Your task to perform on an android device: star an email in the gmail app Image 0: 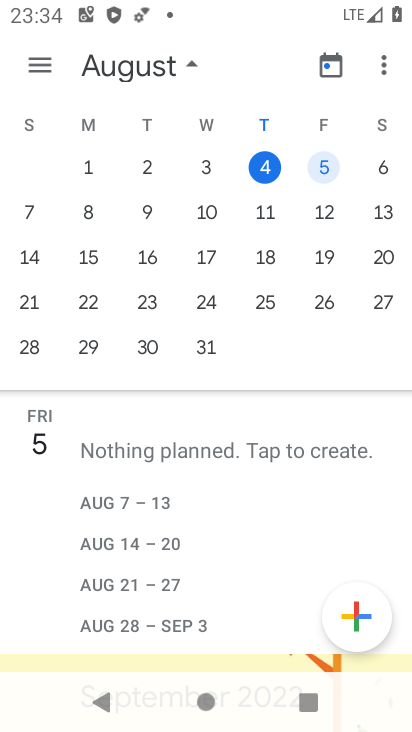
Step 0: press home button
Your task to perform on an android device: star an email in the gmail app Image 1: 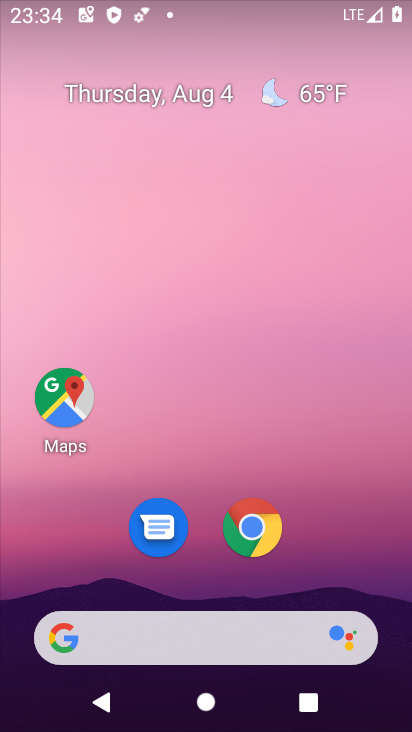
Step 1: drag from (151, 684) to (327, 119)
Your task to perform on an android device: star an email in the gmail app Image 2: 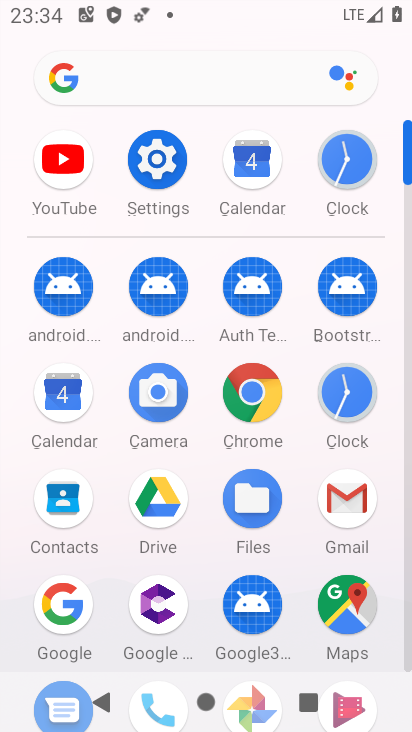
Step 2: click (365, 502)
Your task to perform on an android device: star an email in the gmail app Image 3: 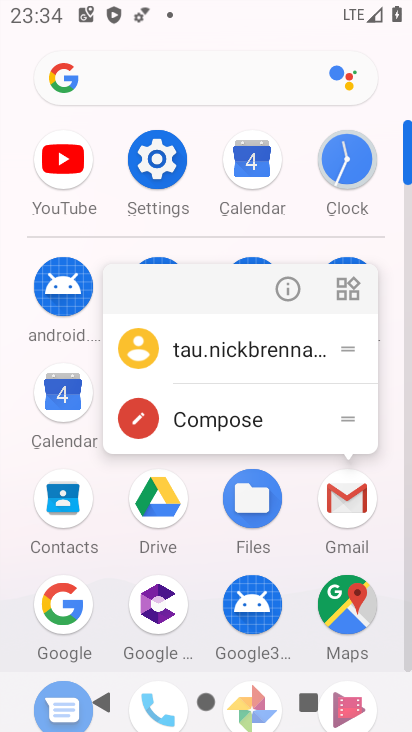
Step 3: click (365, 497)
Your task to perform on an android device: star an email in the gmail app Image 4: 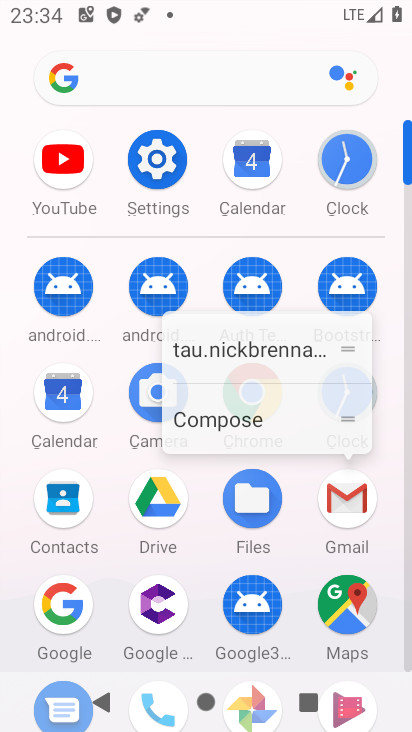
Step 4: click (365, 497)
Your task to perform on an android device: star an email in the gmail app Image 5: 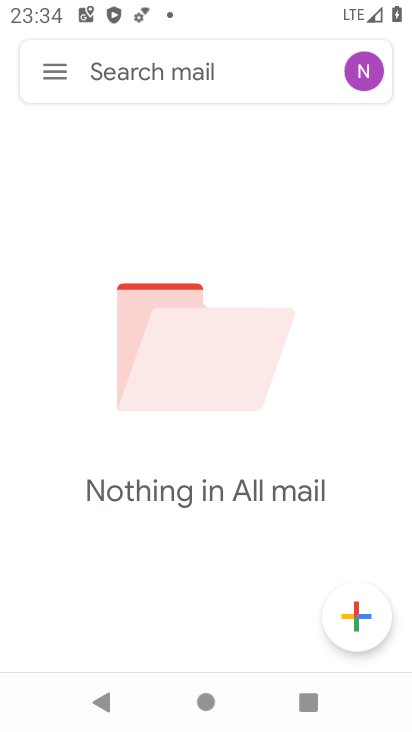
Step 5: click (41, 68)
Your task to perform on an android device: star an email in the gmail app Image 6: 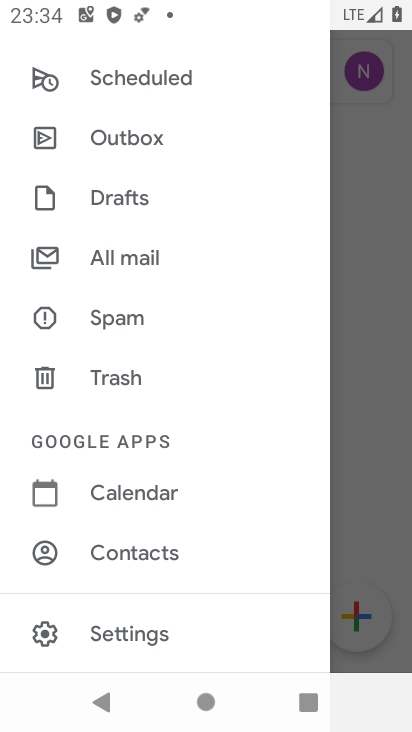
Step 6: click (355, 383)
Your task to perform on an android device: star an email in the gmail app Image 7: 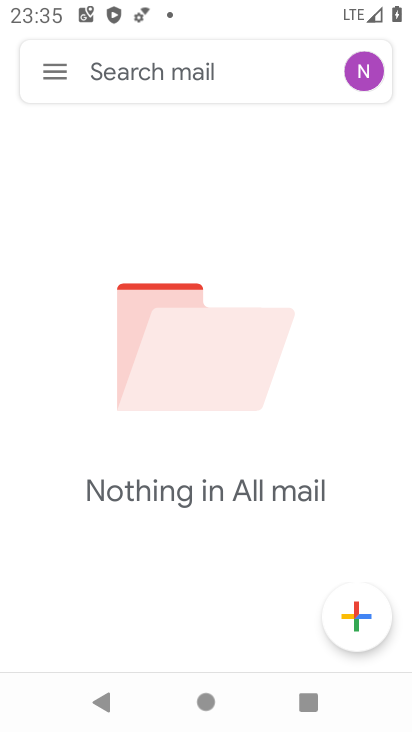
Step 7: task complete